Your task to perform on an android device: find which apps use the phone's location Image 0: 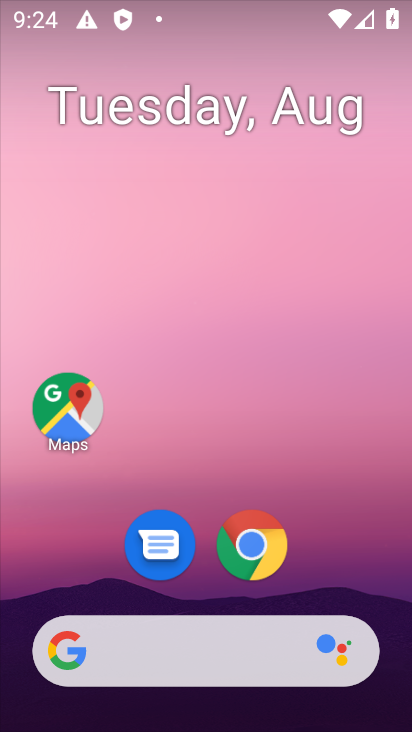
Step 0: drag from (13, 696) to (255, 197)
Your task to perform on an android device: find which apps use the phone's location Image 1: 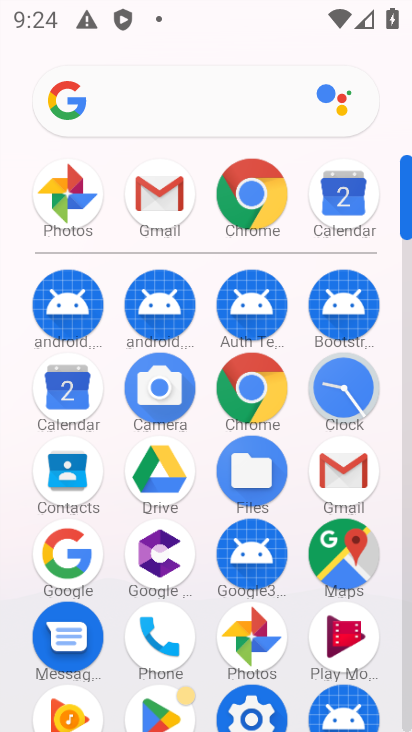
Step 1: click (234, 704)
Your task to perform on an android device: find which apps use the phone's location Image 2: 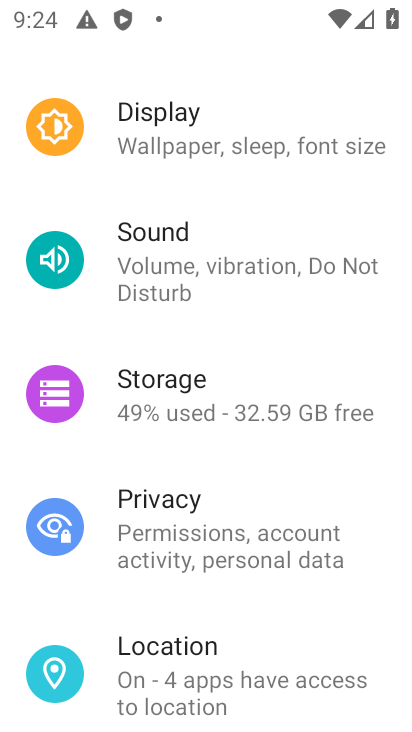
Step 2: click (106, 681)
Your task to perform on an android device: find which apps use the phone's location Image 3: 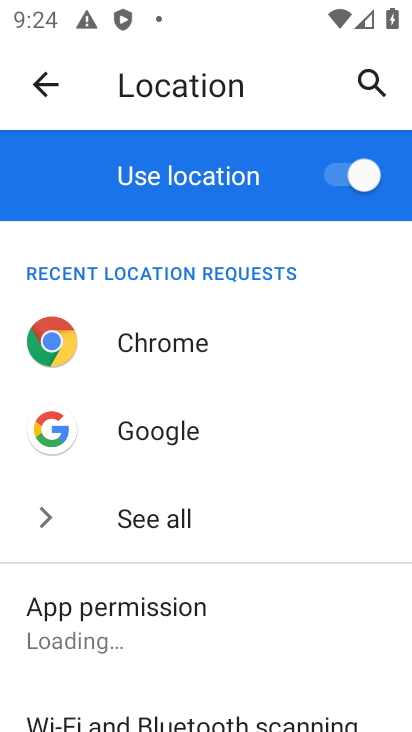
Step 3: drag from (6, 711) to (191, 202)
Your task to perform on an android device: find which apps use the phone's location Image 4: 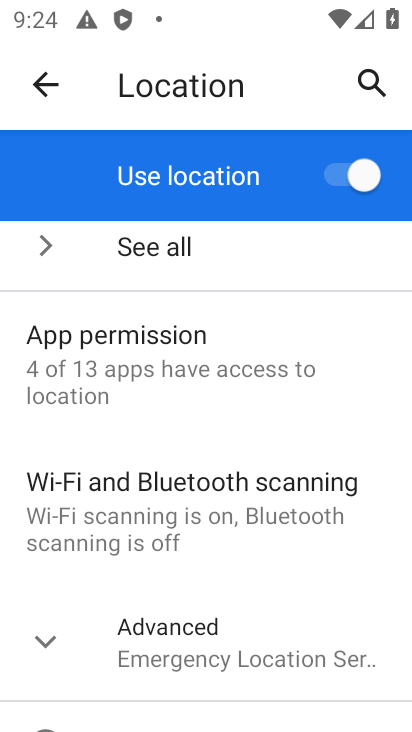
Step 4: drag from (24, 439) to (177, 135)
Your task to perform on an android device: find which apps use the phone's location Image 5: 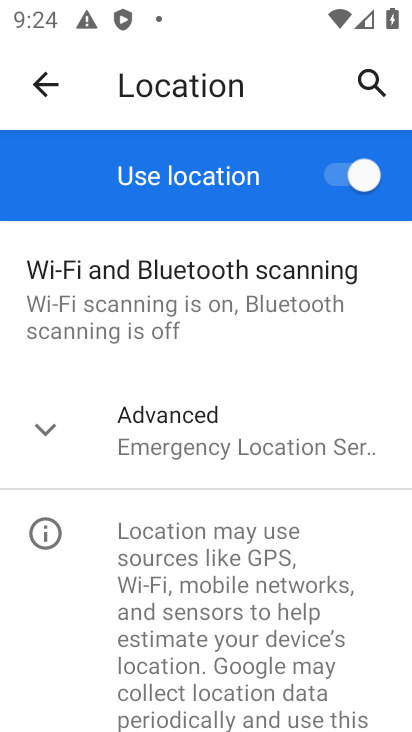
Step 5: drag from (162, 300) to (149, 622)
Your task to perform on an android device: find which apps use the phone's location Image 6: 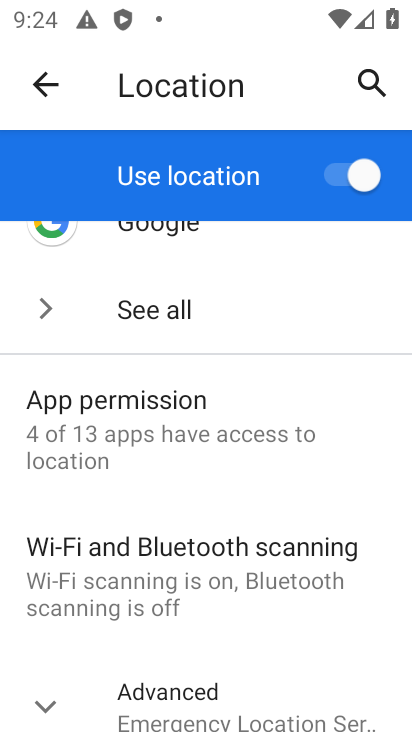
Step 6: click (143, 427)
Your task to perform on an android device: find which apps use the phone's location Image 7: 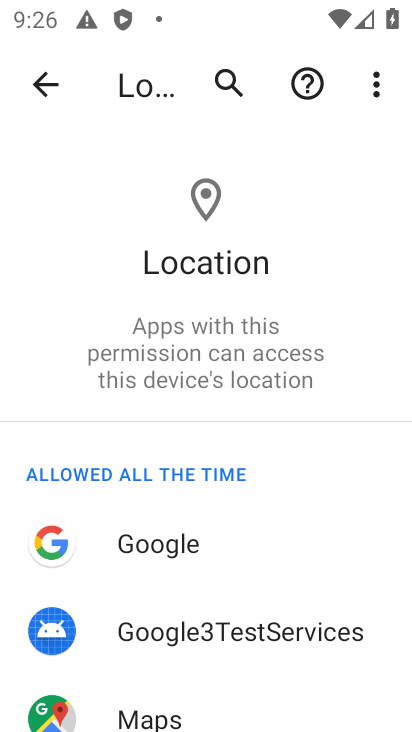
Step 7: task complete